Your task to perform on an android device: toggle javascript in the chrome app Image 0: 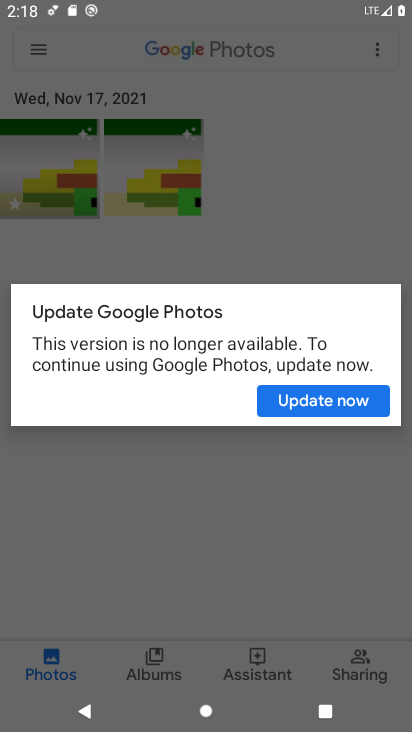
Step 0: press home button
Your task to perform on an android device: toggle javascript in the chrome app Image 1: 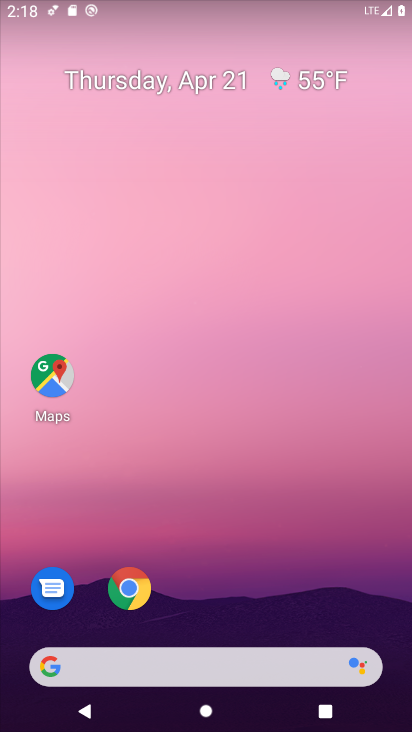
Step 1: click (112, 599)
Your task to perform on an android device: toggle javascript in the chrome app Image 2: 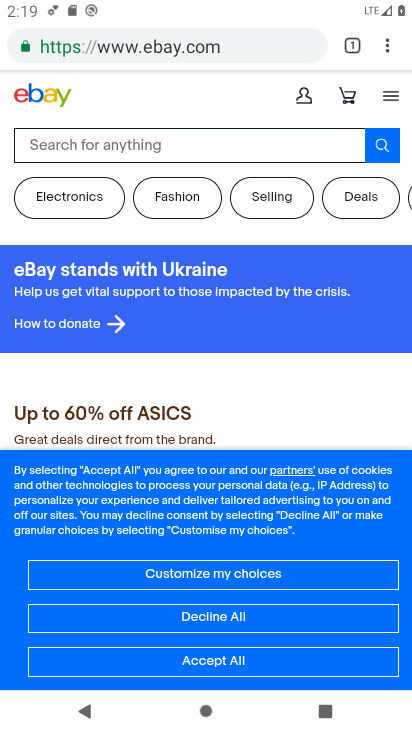
Step 2: click (384, 48)
Your task to perform on an android device: toggle javascript in the chrome app Image 3: 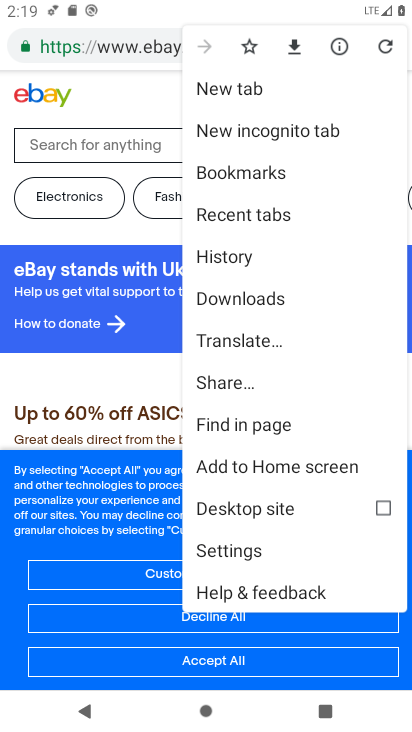
Step 3: click (241, 544)
Your task to perform on an android device: toggle javascript in the chrome app Image 4: 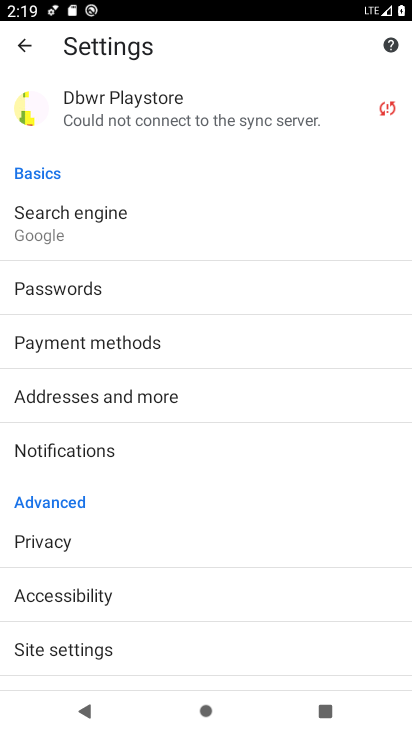
Step 4: drag from (144, 544) to (148, 422)
Your task to perform on an android device: toggle javascript in the chrome app Image 5: 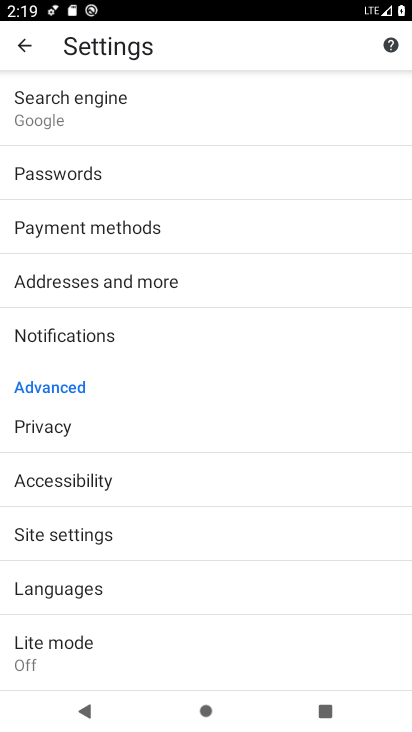
Step 5: click (128, 525)
Your task to perform on an android device: toggle javascript in the chrome app Image 6: 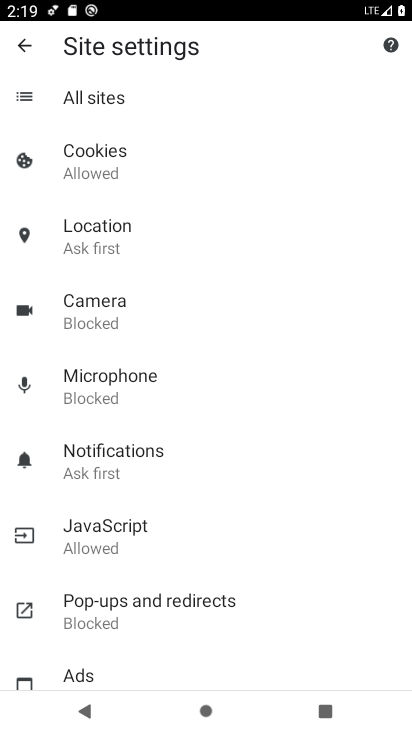
Step 6: click (130, 528)
Your task to perform on an android device: toggle javascript in the chrome app Image 7: 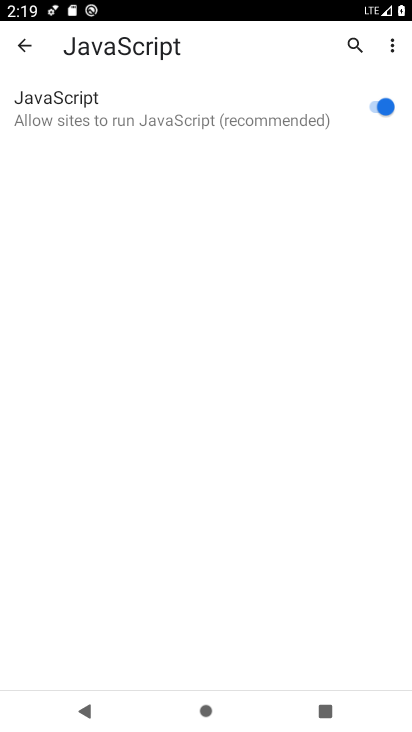
Step 7: click (395, 106)
Your task to perform on an android device: toggle javascript in the chrome app Image 8: 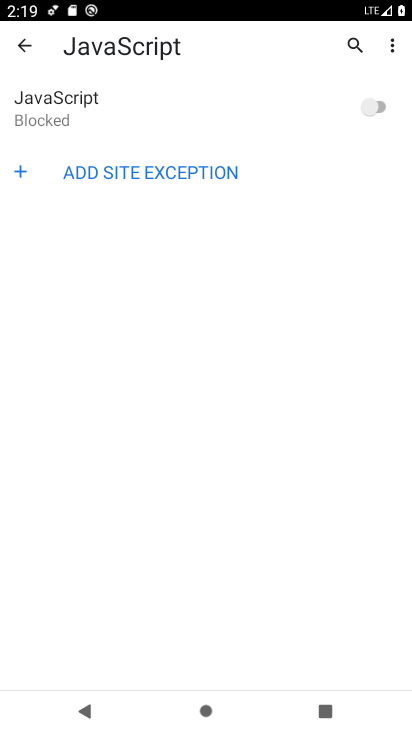
Step 8: task complete